Your task to perform on an android device: delete the emails in spam in the gmail app Image 0: 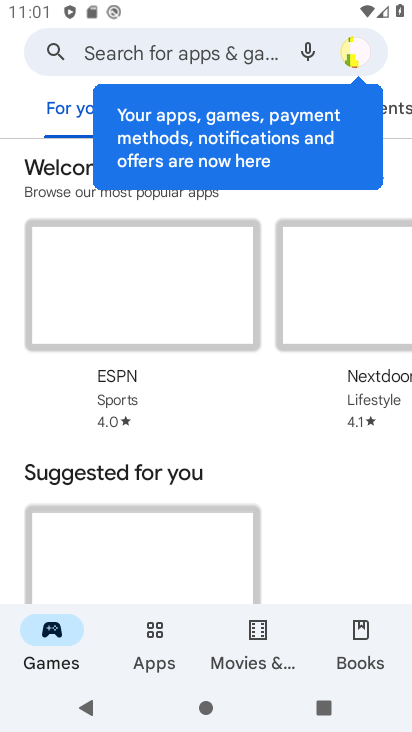
Step 0: press home button
Your task to perform on an android device: delete the emails in spam in the gmail app Image 1: 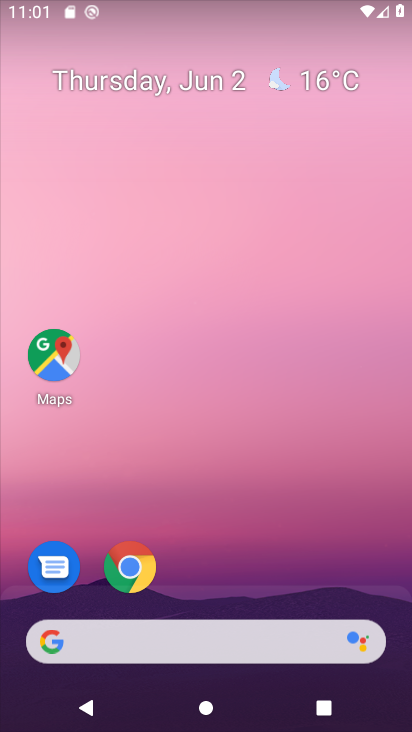
Step 1: drag from (299, 543) to (232, 116)
Your task to perform on an android device: delete the emails in spam in the gmail app Image 2: 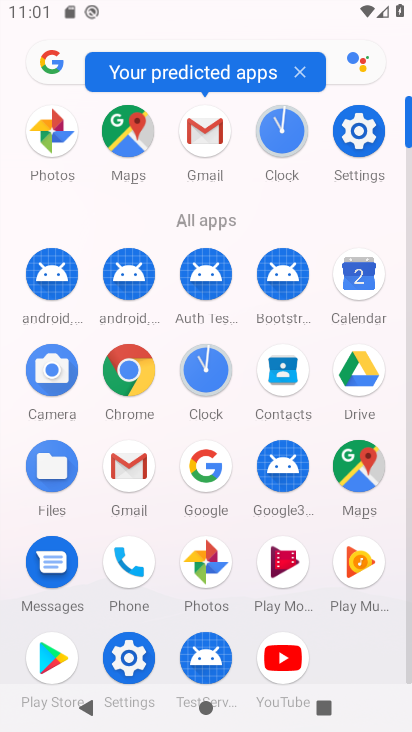
Step 2: click (205, 142)
Your task to perform on an android device: delete the emails in spam in the gmail app Image 3: 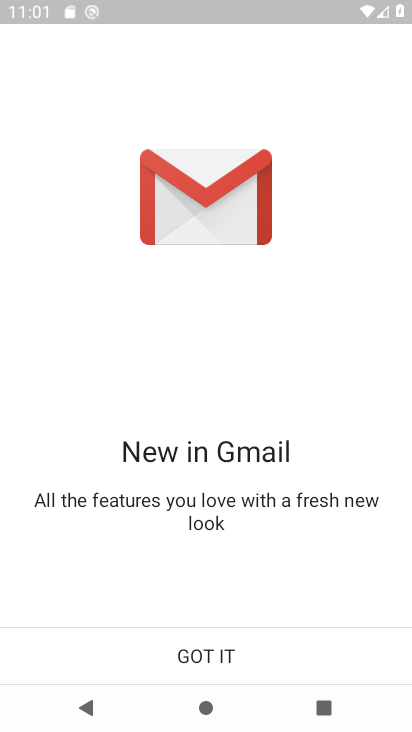
Step 3: click (253, 641)
Your task to perform on an android device: delete the emails in spam in the gmail app Image 4: 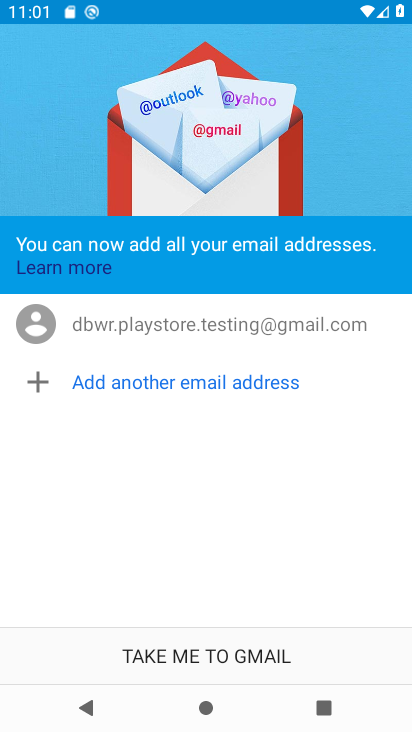
Step 4: click (284, 667)
Your task to perform on an android device: delete the emails in spam in the gmail app Image 5: 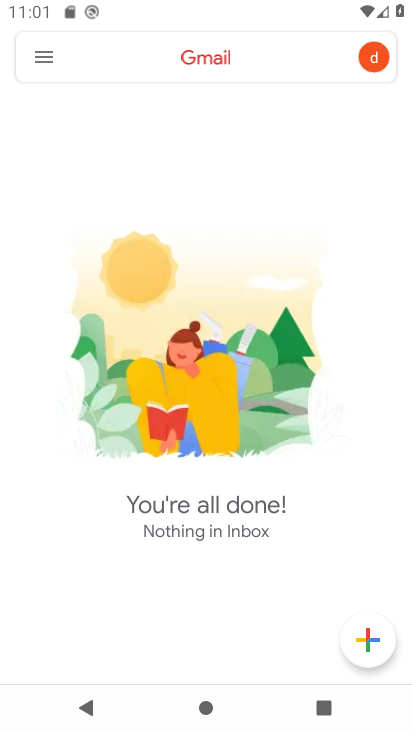
Step 5: click (48, 51)
Your task to perform on an android device: delete the emails in spam in the gmail app Image 6: 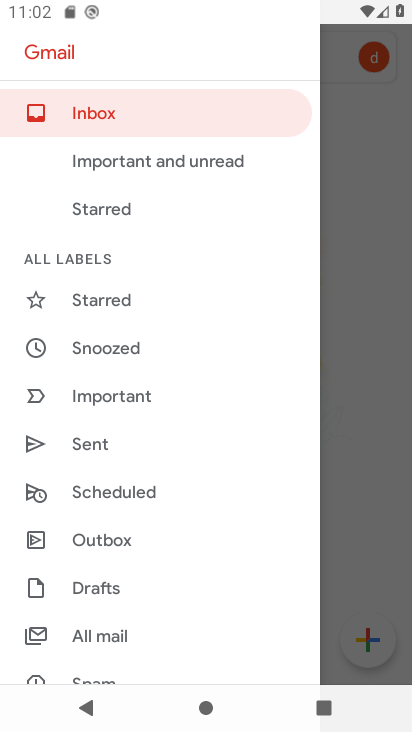
Step 6: drag from (189, 514) to (140, 214)
Your task to perform on an android device: delete the emails in spam in the gmail app Image 7: 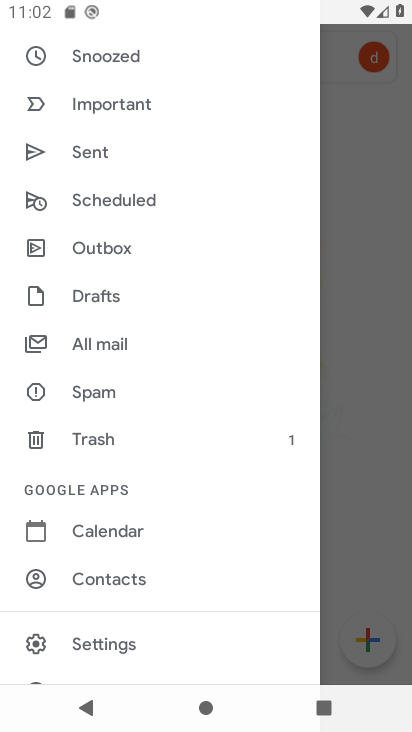
Step 7: click (84, 390)
Your task to perform on an android device: delete the emails in spam in the gmail app Image 8: 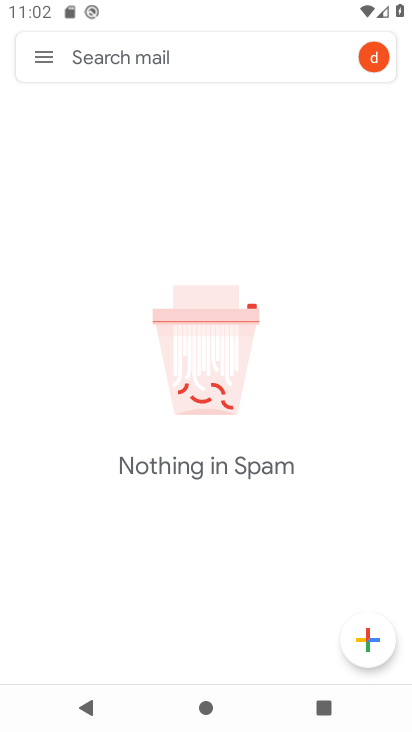
Step 8: task complete